Your task to perform on an android device: Go to display settings Image 0: 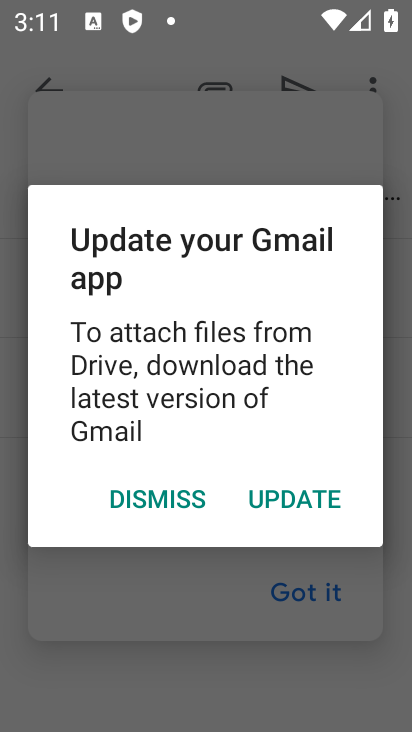
Step 0: press home button
Your task to perform on an android device: Go to display settings Image 1: 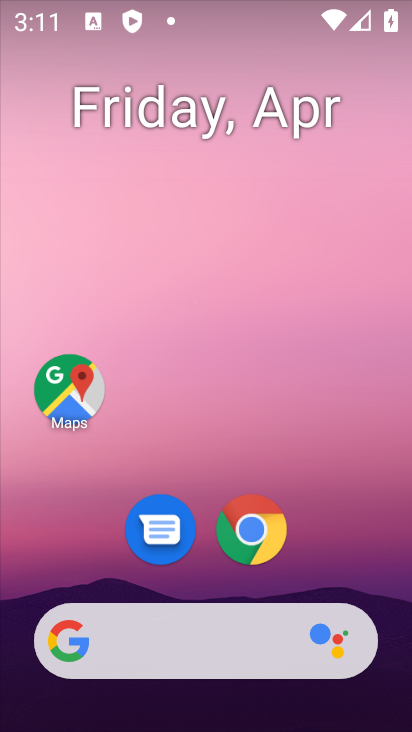
Step 1: drag from (247, 609) to (274, 159)
Your task to perform on an android device: Go to display settings Image 2: 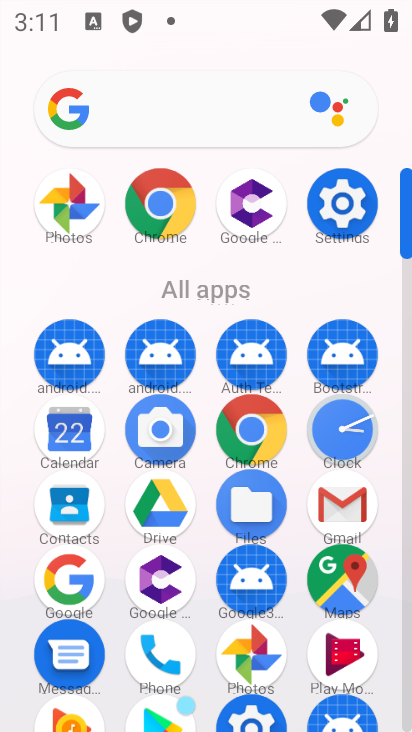
Step 2: drag from (243, 503) to (277, 247)
Your task to perform on an android device: Go to display settings Image 3: 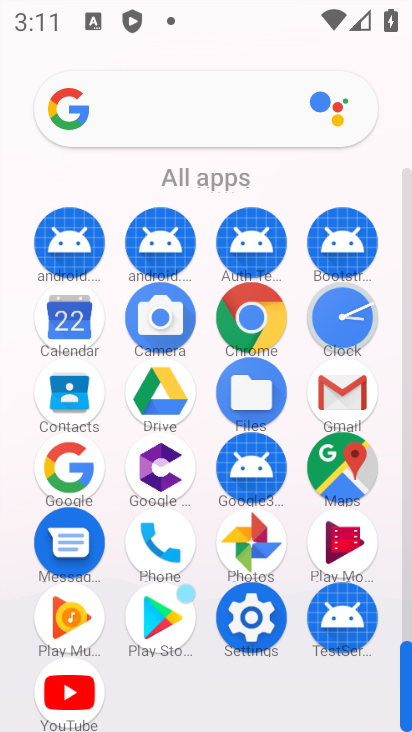
Step 3: drag from (173, 362) to (179, 677)
Your task to perform on an android device: Go to display settings Image 4: 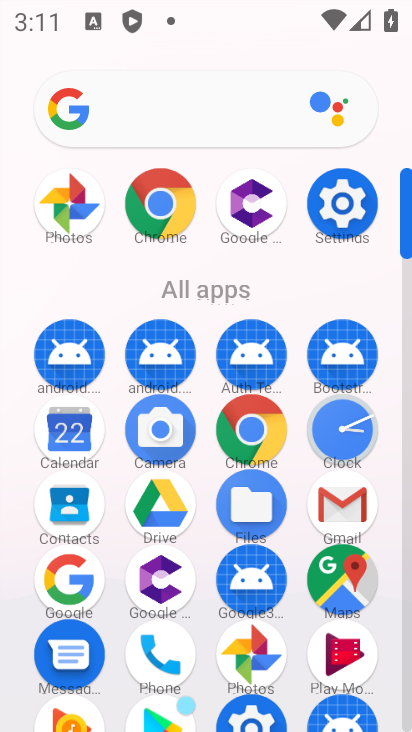
Step 4: click (343, 222)
Your task to perform on an android device: Go to display settings Image 5: 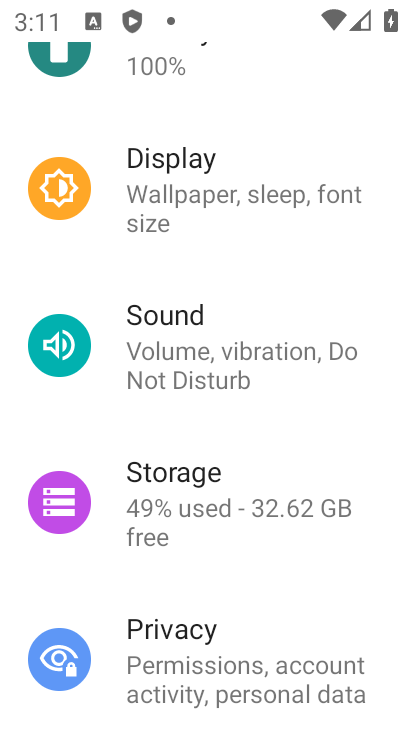
Step 5: drag from (256, 332) to (230, 502)
Your task to perform on an android device: Go to display settings Image 6: 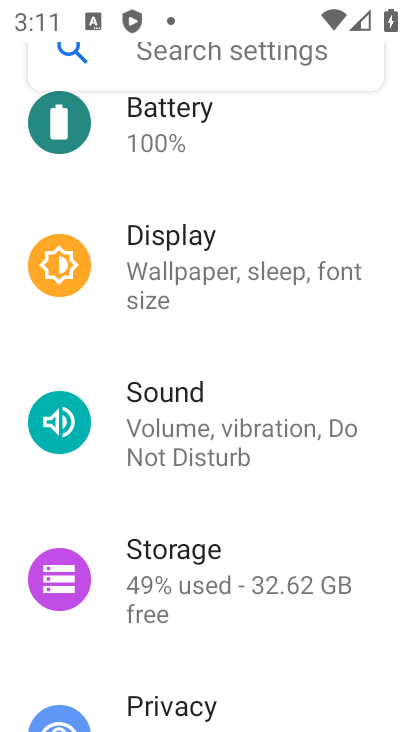
Step 6: click (275, 290)
Your task to perform on an android device: Go to display settings Image 7: 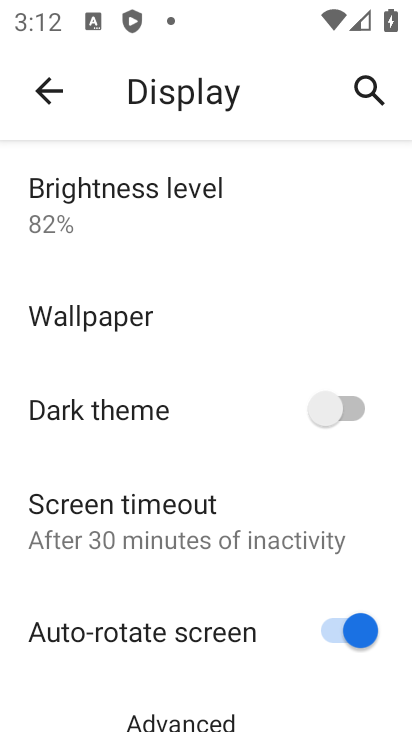
Step 7: task complete